Your task to perform on an android device: find which apps use the phone's location Image 0: 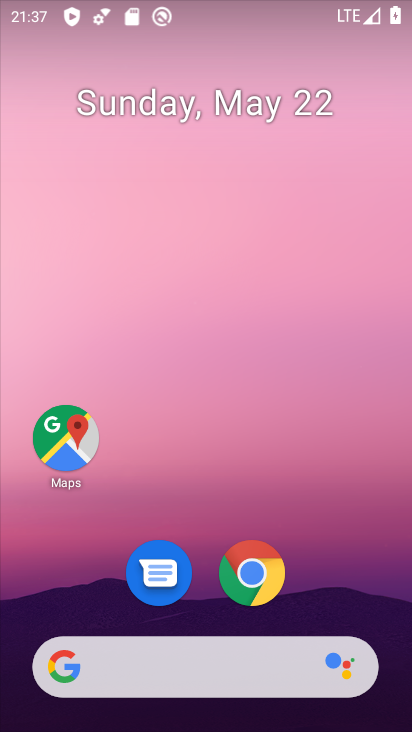
Step 0: press home button
Your task to perform on an android device: find which apps use the phone's location Image 1: 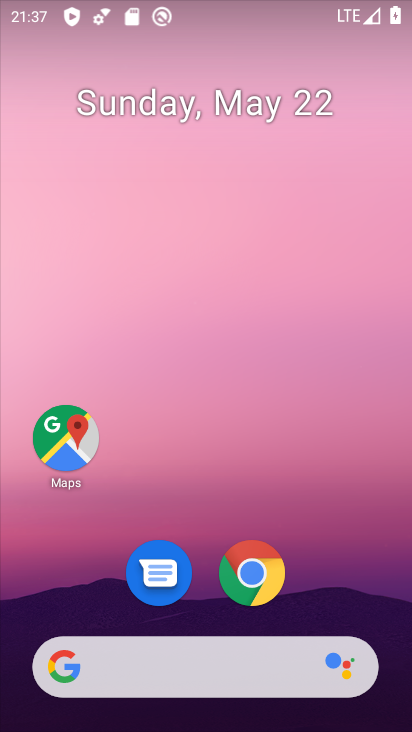
Step 1: drag from (382, 611) to (278, 165)
Your task to perform on an android device: find which apps use the phone's location Image 2: 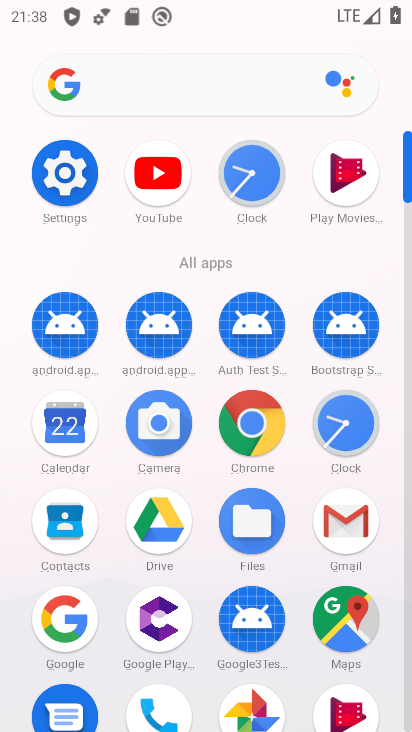
Step 2: click (151, 687)
Your task to perform on an android device: find which apps use the phone's location Image 3: 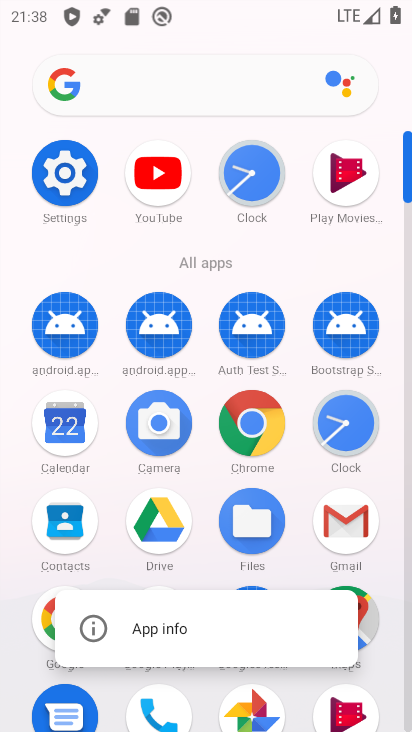
Step 3: click (151, 626)
Your task to perform on an android device: find which apps use the phone's location Image 4: 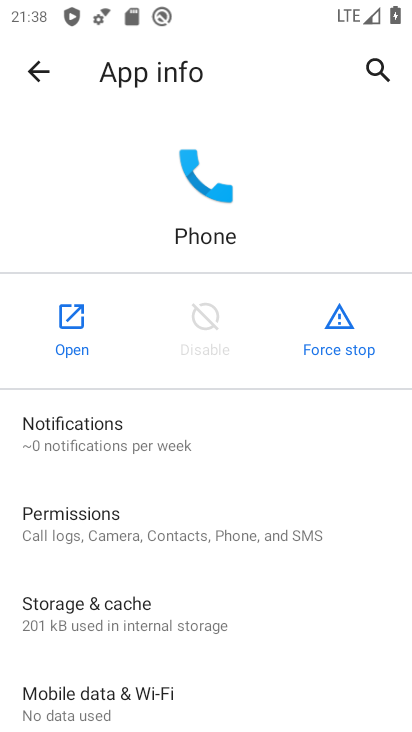
Step 4: click (39, 525)
Your task to perform on an android device: find which apps use the phone's location Image 5: 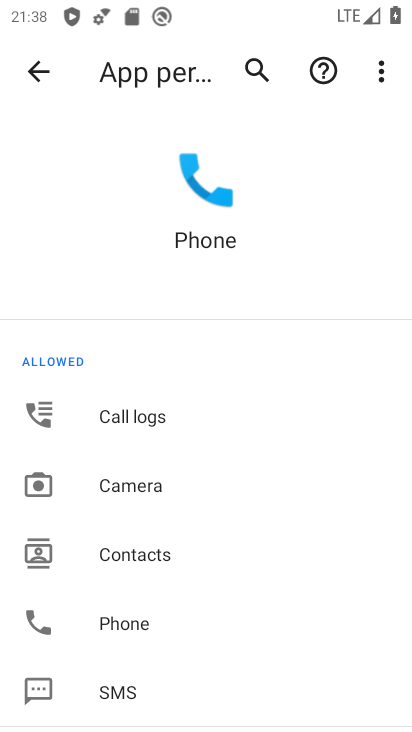
Step 5: drag from (292, 625) to (216, 277)
Your task to perform on an android device: find which apps use the phone's location Image 6: 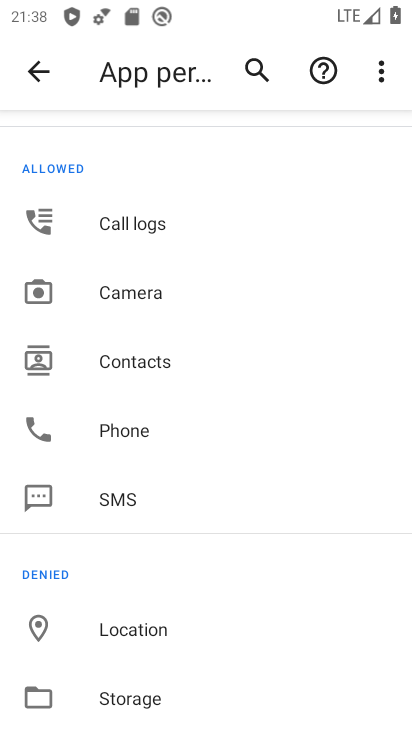
Step 6: drag from (202, 583) to (198, 329)
Your task to perform on an android device: find which apps use the phone's location Image 7: 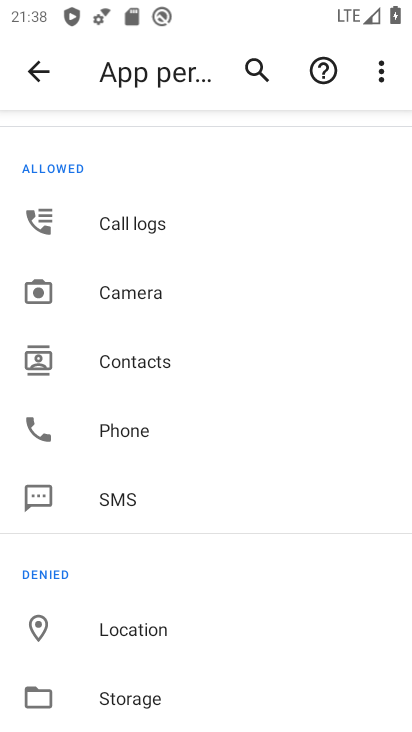
Step 7: drag from (195, 629) to (238, 364)
Your task to perform on an android device: find which apps use the phone's location Image 8: 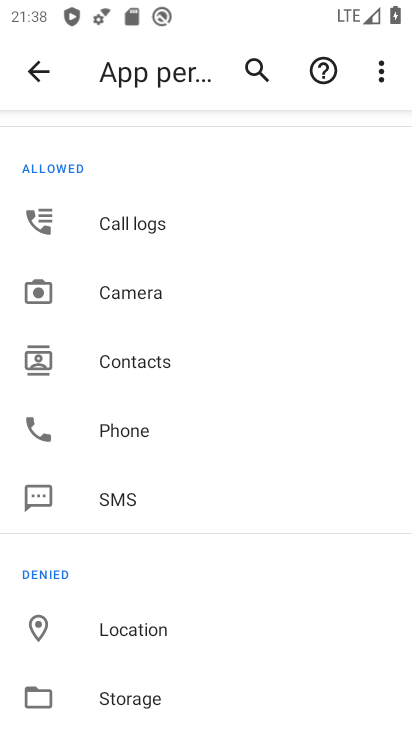
Step 8: click (172, 624)
Your task to perform on an android device: find which apps use the phone's location Image 9: 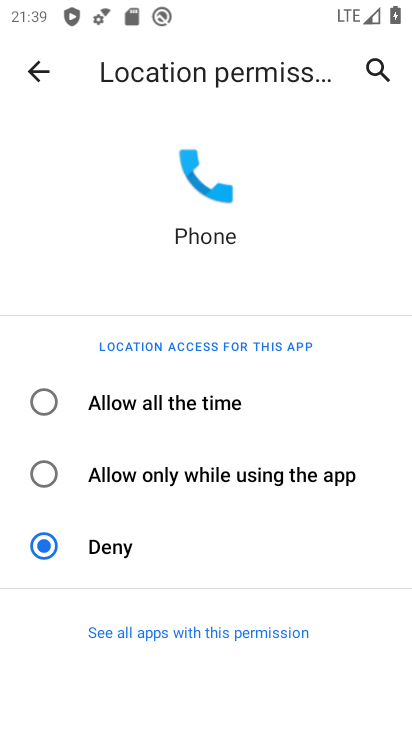
Step 9: click (172, 625)
Your task to perform on an android device: find which apps use the phone's location Image 10: 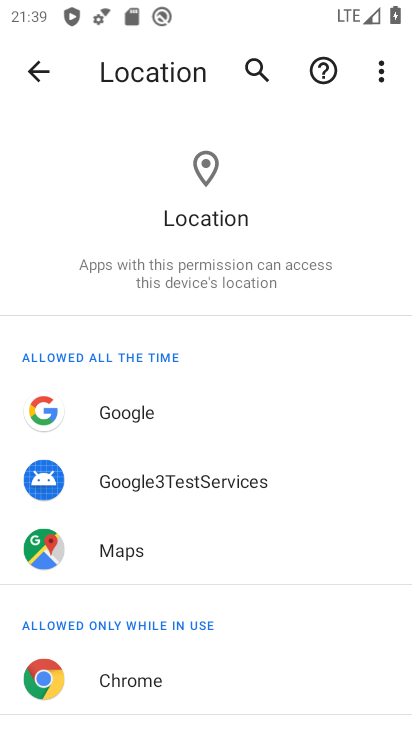
Step 10: task complete